Your task to perform on an android device: Search for Mexican restaurants on Maps Image 0: 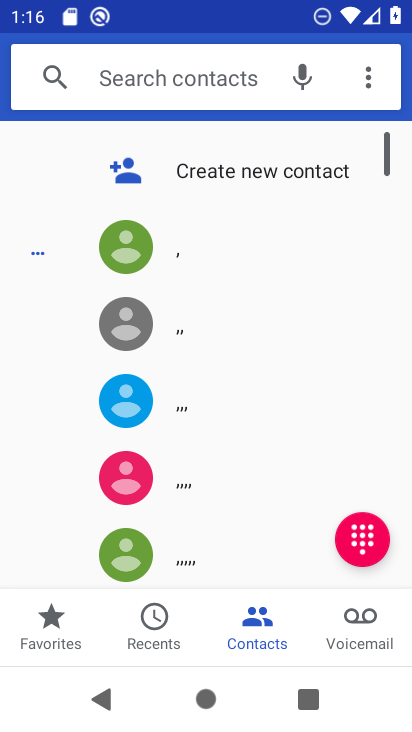
Step 0: press home button
Your task to perform on an android device: Search for Mexican restaurants on Maps Image 1: 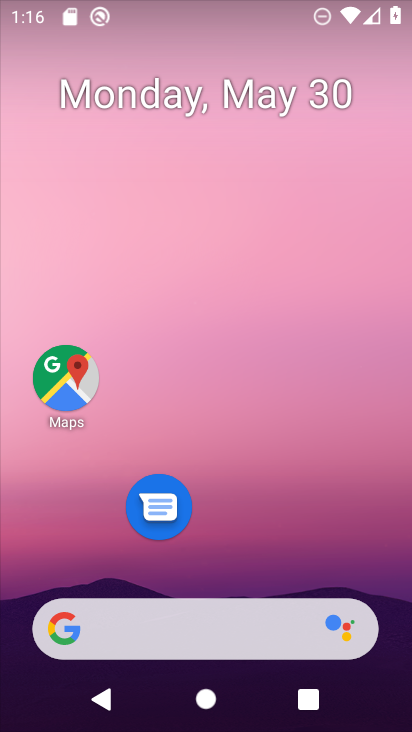
Step 1: click (407, 250)
Your task to perform on an android device: Search for Mexican restaurants on Maps Image 2: 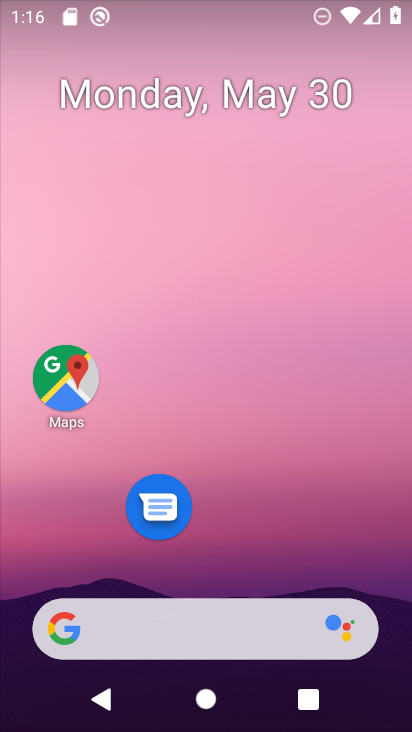
Step 2: drag from (353, 597) to (41, 78)
Your task to perform on an android device: Search for Mexican restaurants on Maps Image 3: 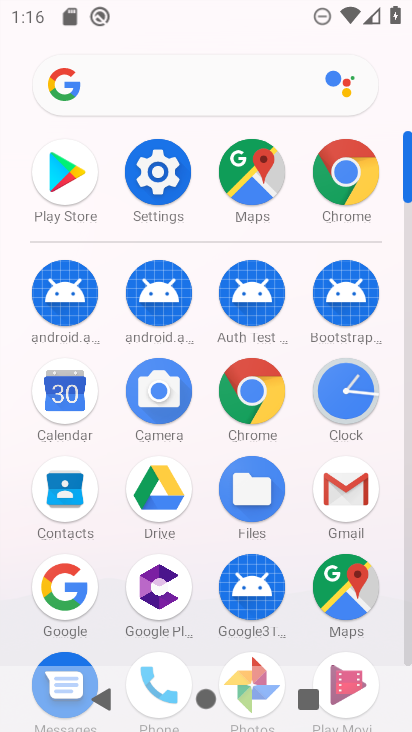
Step 3: click (410, 574)
Your task to perform on an android device: Search for Mexican restaurants on Maps Image 4: 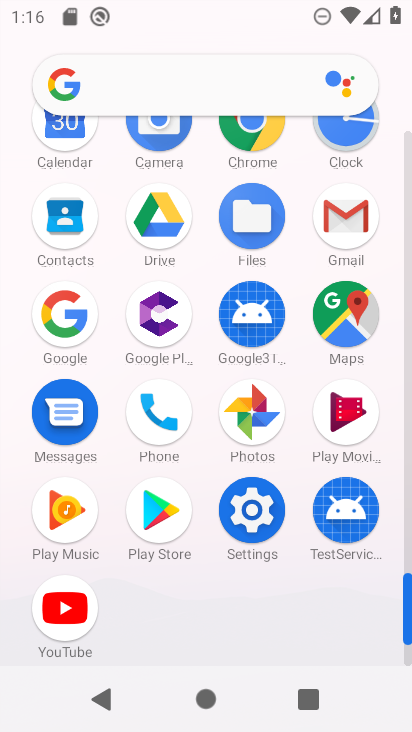
Step 4: click (331, 348)
Your task to perform on an android device: Search for Mexican restaurants on Maps Image 5: 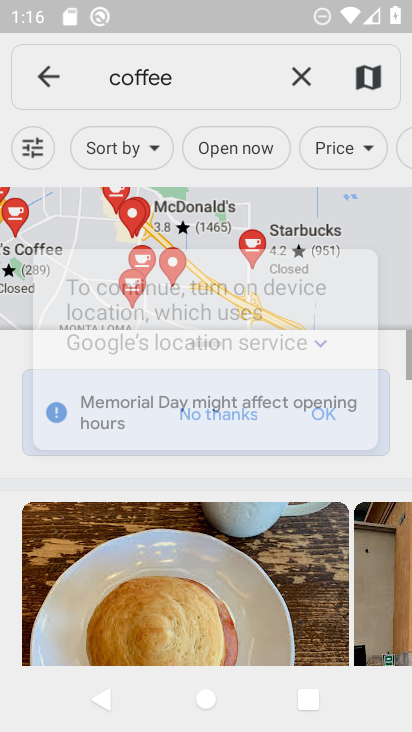
Step 5: click (305, 83)
Your task to perform on an android device: Search for Mexican restaurants on Maps Image 6: 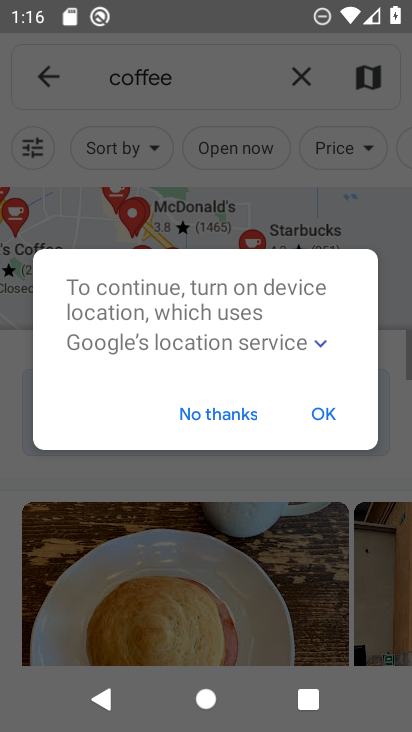
Step 6: click (243, 406)
Your task to perform on an android device: Search for Mexican restaurants on Maps Image 7: 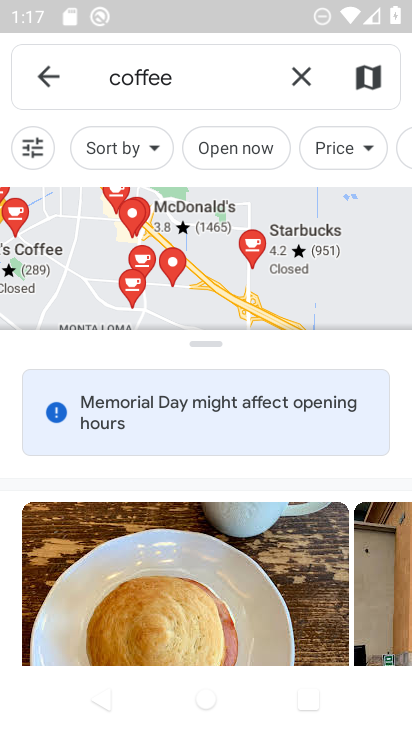
Step 7: click (309, 93)
Your task to perform on an android device: Search for Mexican restaurants on Maps Image 8: 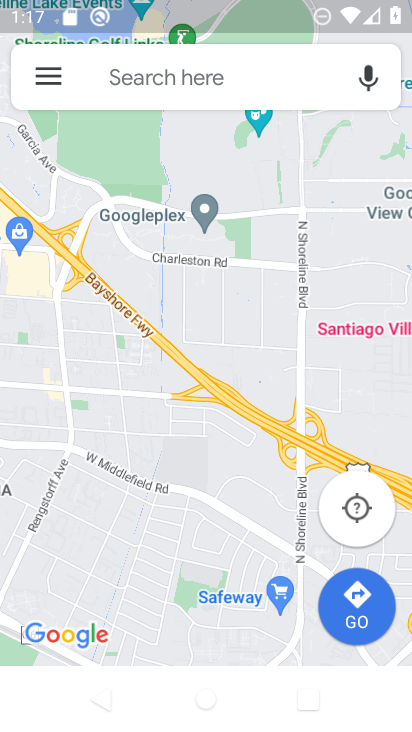
Step 8: click (245, 72)
Your task to perform on an android device: Search for Mexican restaurants on Maps Image 9: 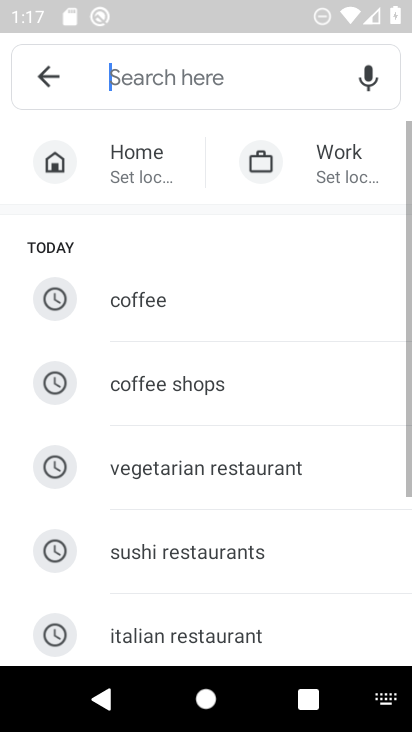
Step 9: click (250, 76)
Your task to perform on an android device: Search for Mexican restaurants on Maps Image 10: 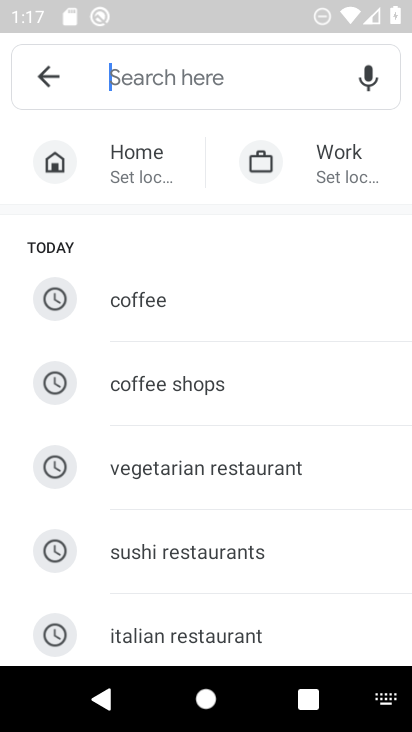
Step 10: type " Mexican restaurants"
Your task to perform on an android device: Search for Mexican restaurants on Maps Image 11: 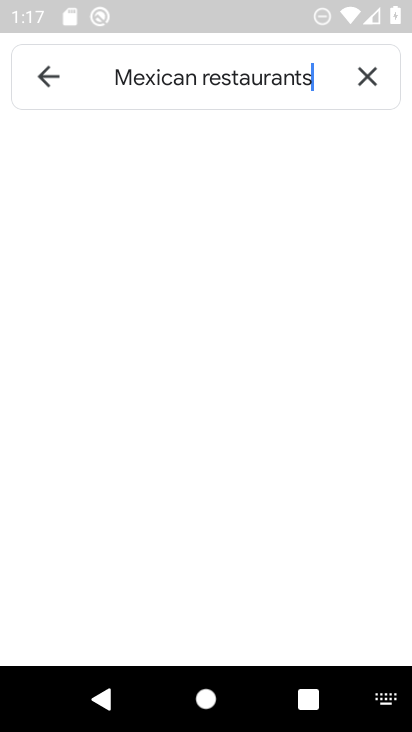
Step 11: click (96, 130)
Your task to perform on an android device: Search for Mexican restaurants on Maps Image 12: 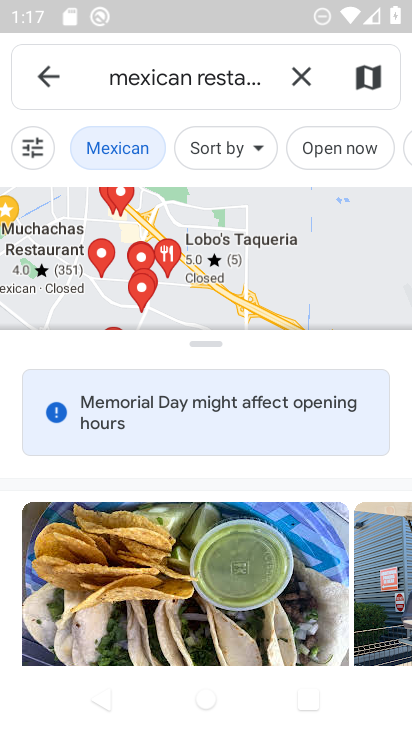
Step 12: task complete